Your task to perform on an android device: What's the weather? Image 0: 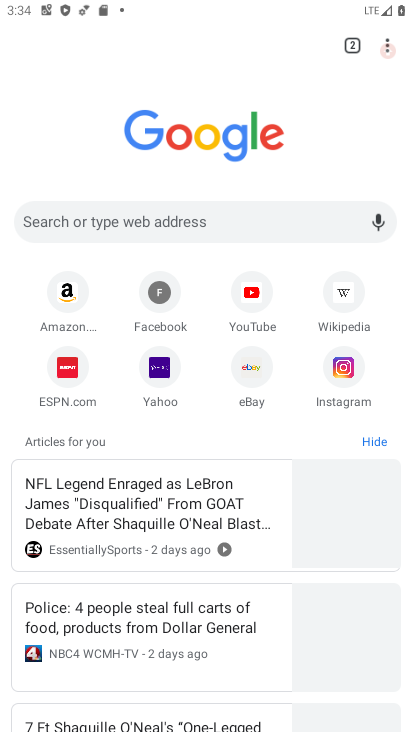
Step 0: press back button
Your task to perform on an android device: What's the weather? Image 1: 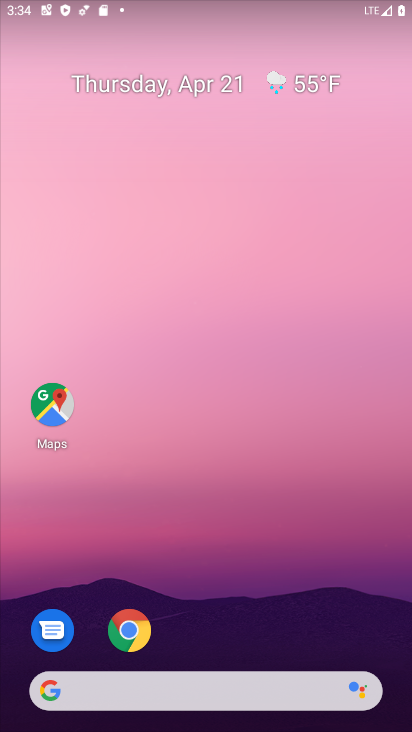
Step 1: click (290, 82)
Your task to perform on an android device: What's the weather? Image 2: 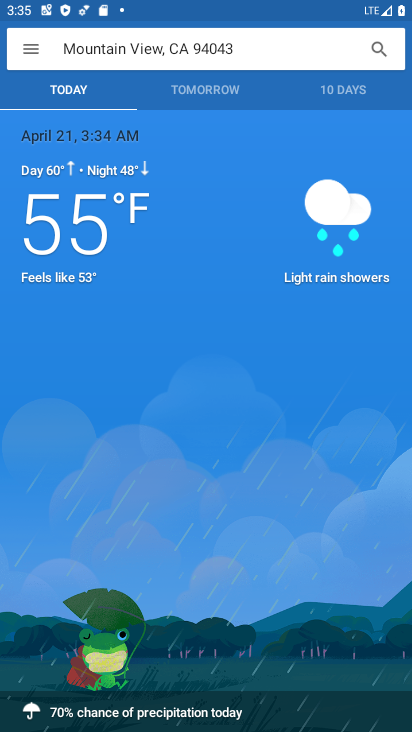
Step 2: task complete